Your task to perform on an android device: Open display settings Image 0: 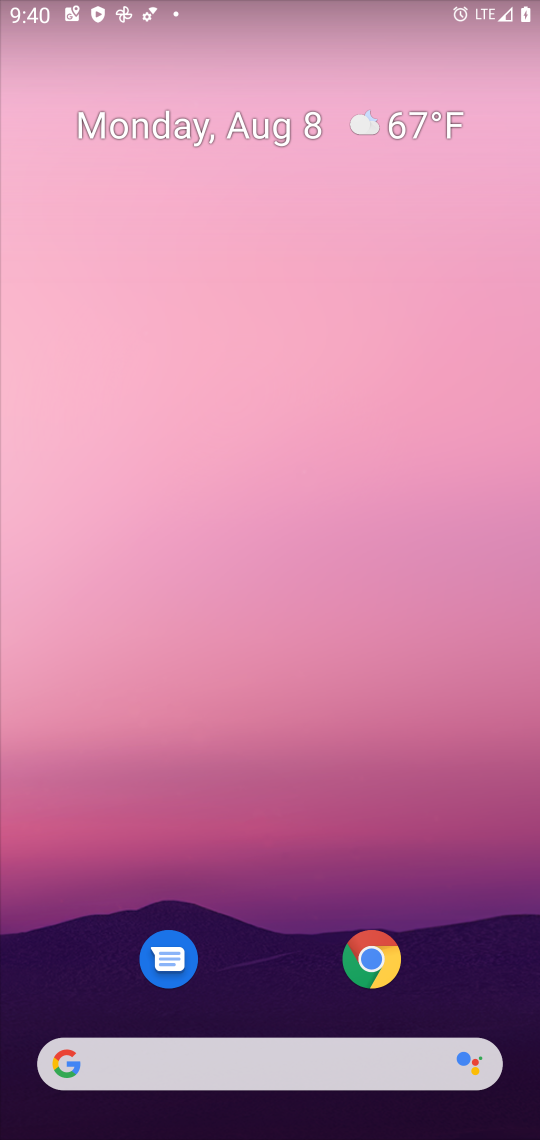
Step 0: drag from (480, 972) to (318, 114)
Your task to perform on an android device: Open display settings Image 1: 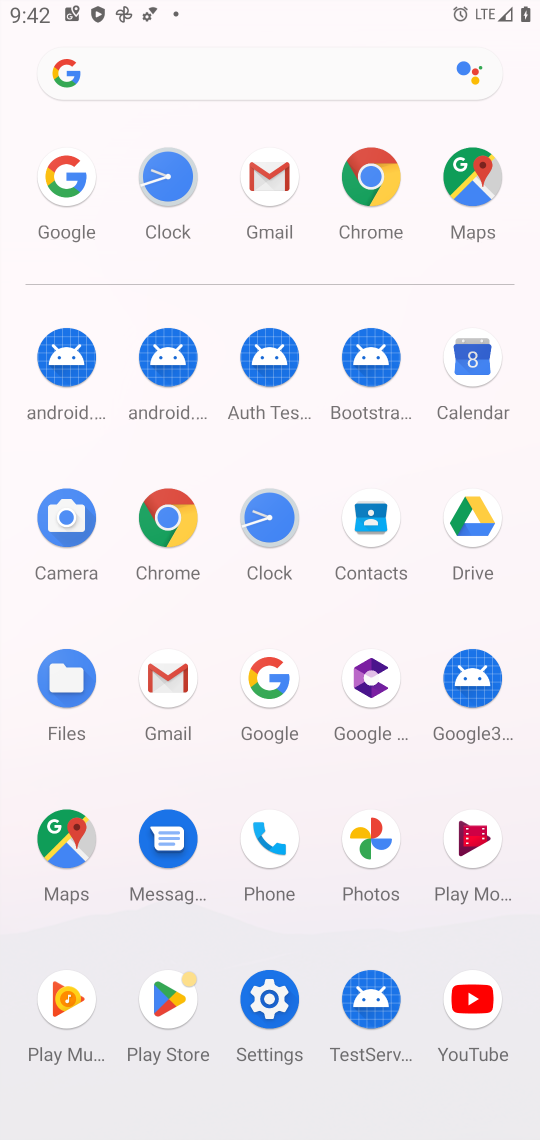
Step 1: click (285, 1011)
Your task to perform on an android device: Open display settings Image 2: 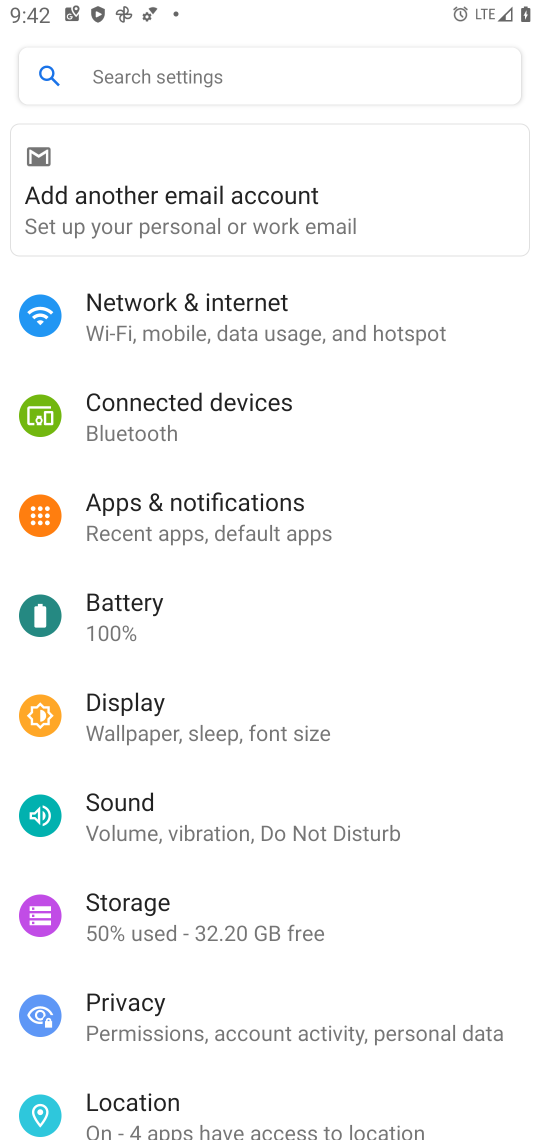
Step 2: click (121, 709)
Your task to perform on an android device: Open display settings Image 3: 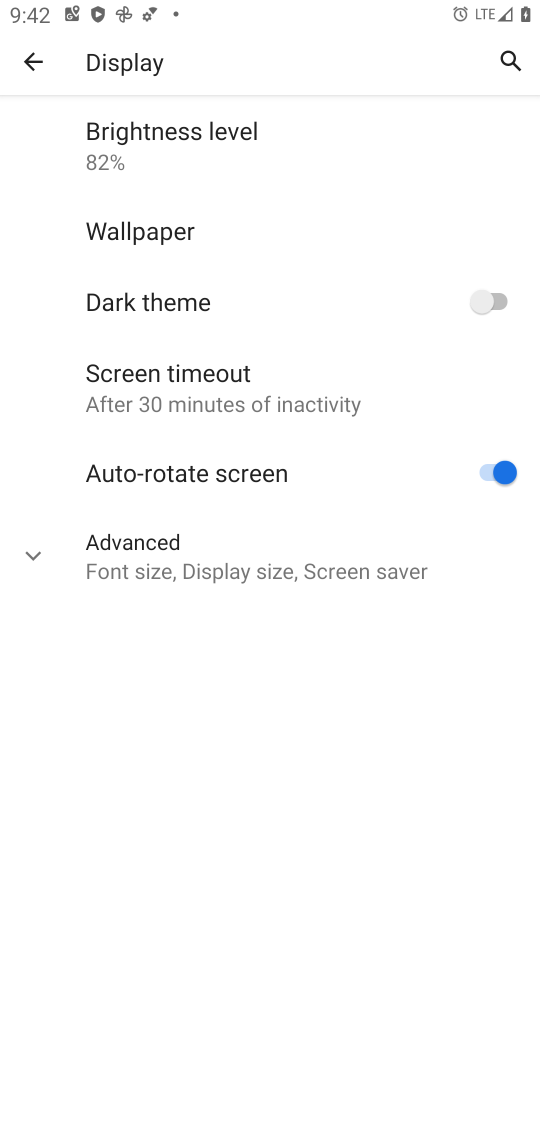
Step 3: task complete